Your task to perform on an android device: Empty the shopping cart on amazon. Search for "apple airpods pro" on amazon, select the first entry, and add it to the cart. Image 0: 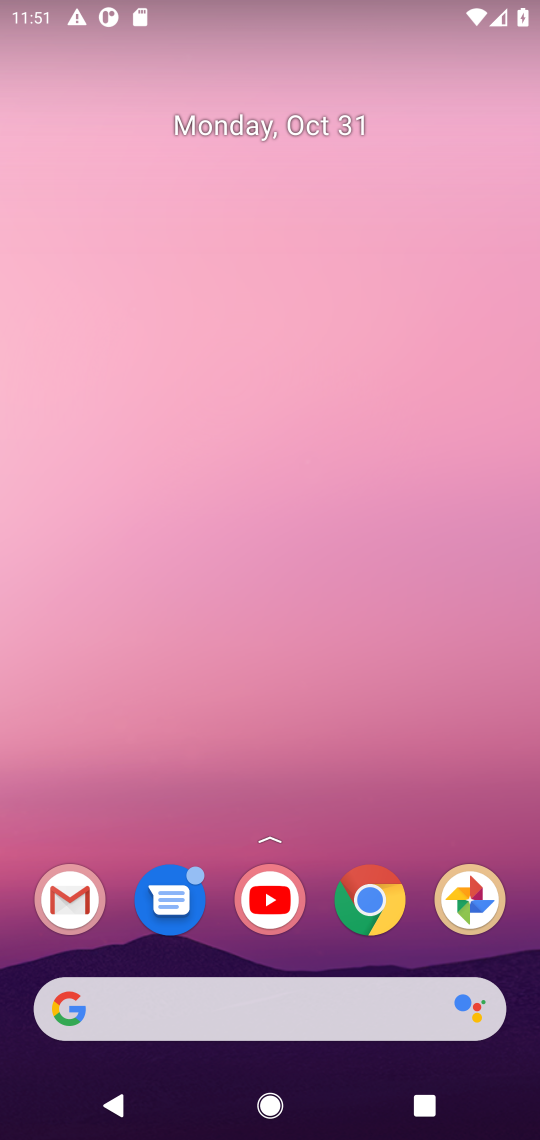
Step 0: click (373, 904)
Your task to perform on an android device: Empty the shopping cart on amazon. Search for "apple airpods pro" on amazon, select the first entry, and add it to the cart. Image 1: 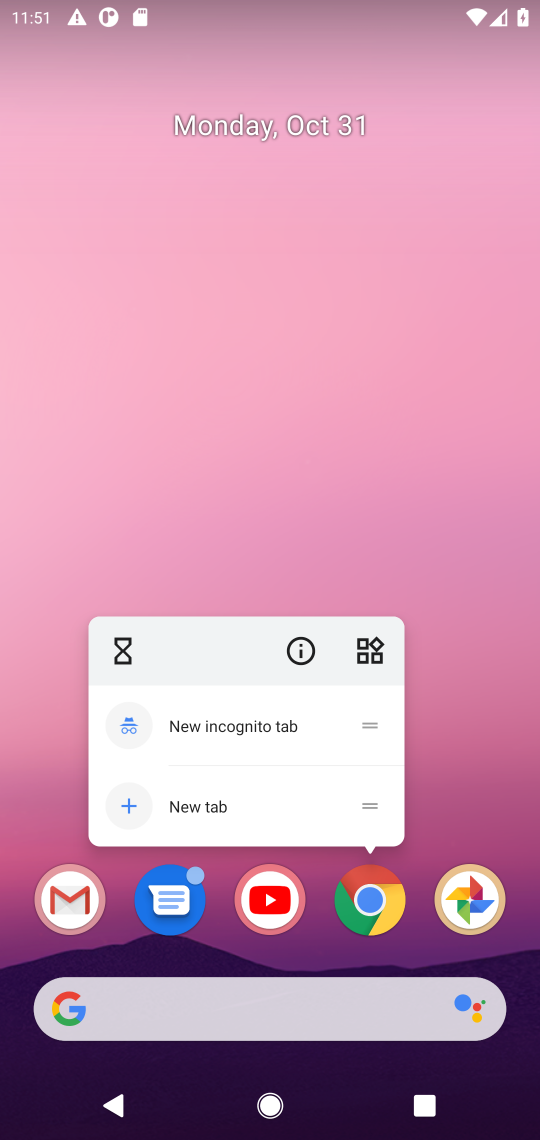
Step 1: click (365, 911)
Your task to perform on an android device: Empty the shopping cart on amazon. Search for "apple airpods pro" on amazon, select the first entry, and add it to the cart. Image 2: 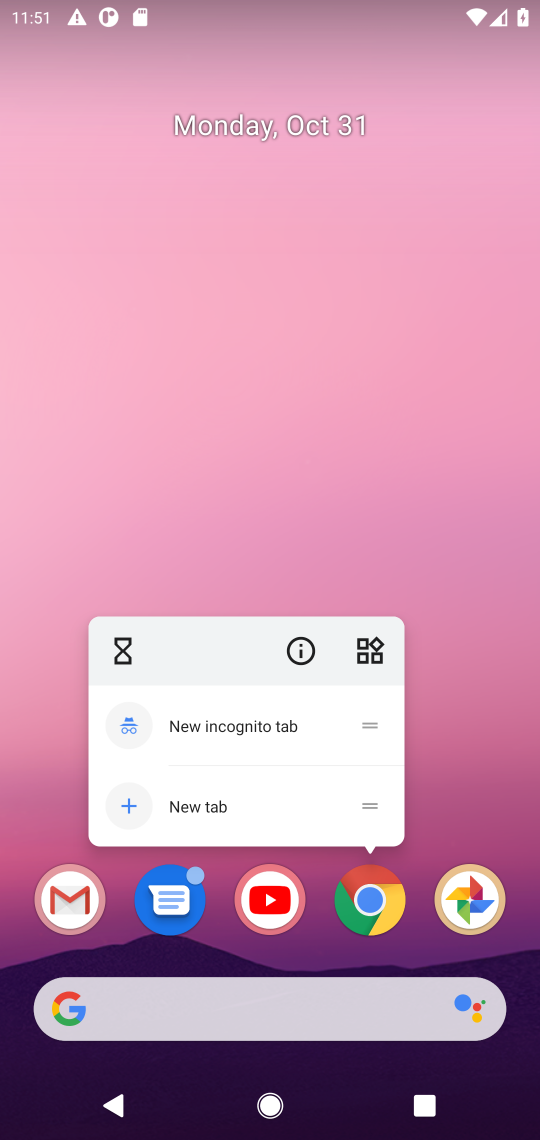
Step 2: click (365, 911)
Your task to perform on an android device: Empty the shopping cart on amazon. Search for "apple airpods pro" on amazon, select the first entry, and add it to the cart. Image 3: 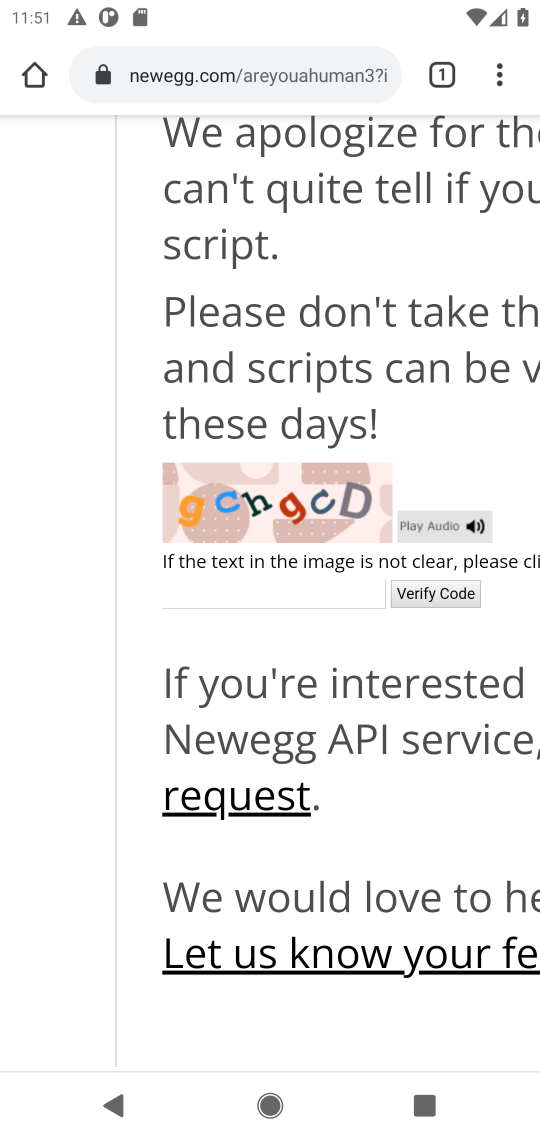
Step 3: click (189, 76)
Your task to perform on an android device: Empty the shopping cart on amazon. Search for "apple airpods pro" on amazon, select the first entry, and add it to the cart. Image 4: 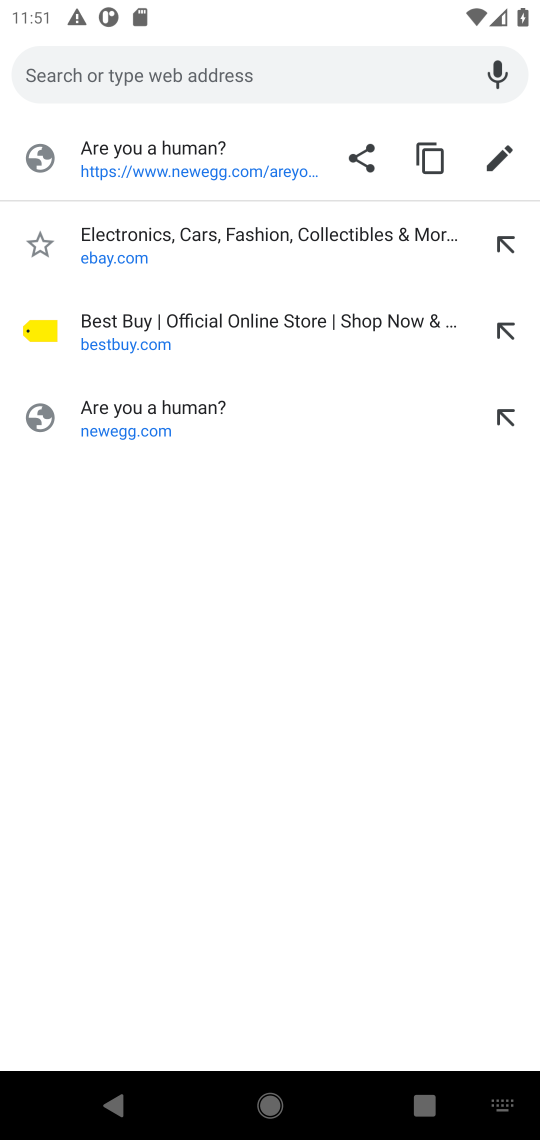
Step 4: type "amazon"
Your task to perform on an android device: Empty the shopping cart on amazon. Search for "apple airpods pro" on amazon, select the first entry, and add it to the cart. Image 5: 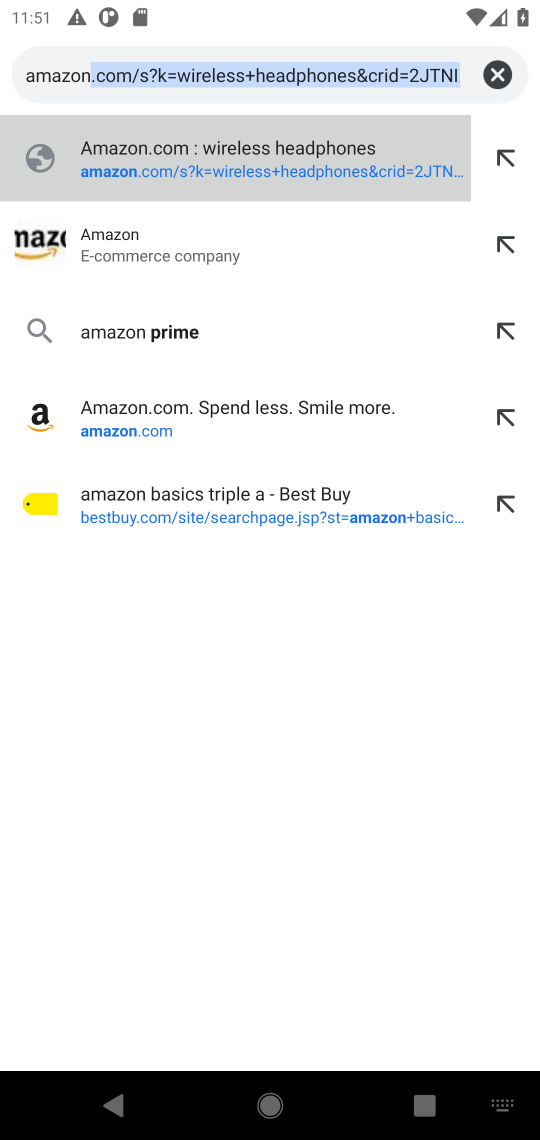
Step 5: press enter
Your task to perform on an android device: Empty the shopping cart on amazon. Search for "apple airpods pro" on amazon, select the first entry, and add it to the cart. Image 6: 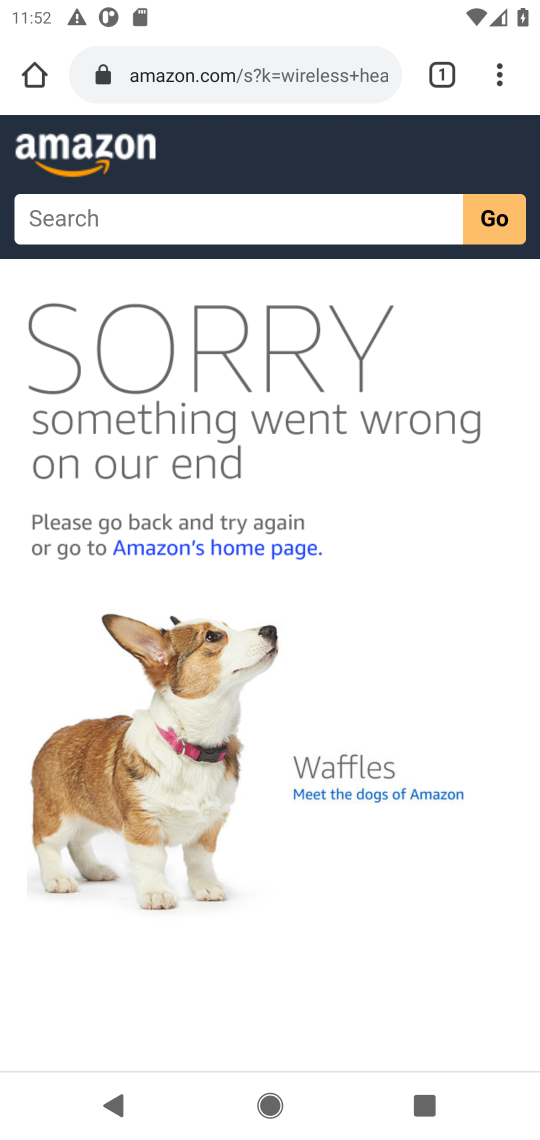
Step 6: click (59, 153)
Your task to perform on an android device: Empty the shopping cart on amazon. Search for "apple airpods pro" on amazon, select the first entry, and add it to the cart. Image 7: 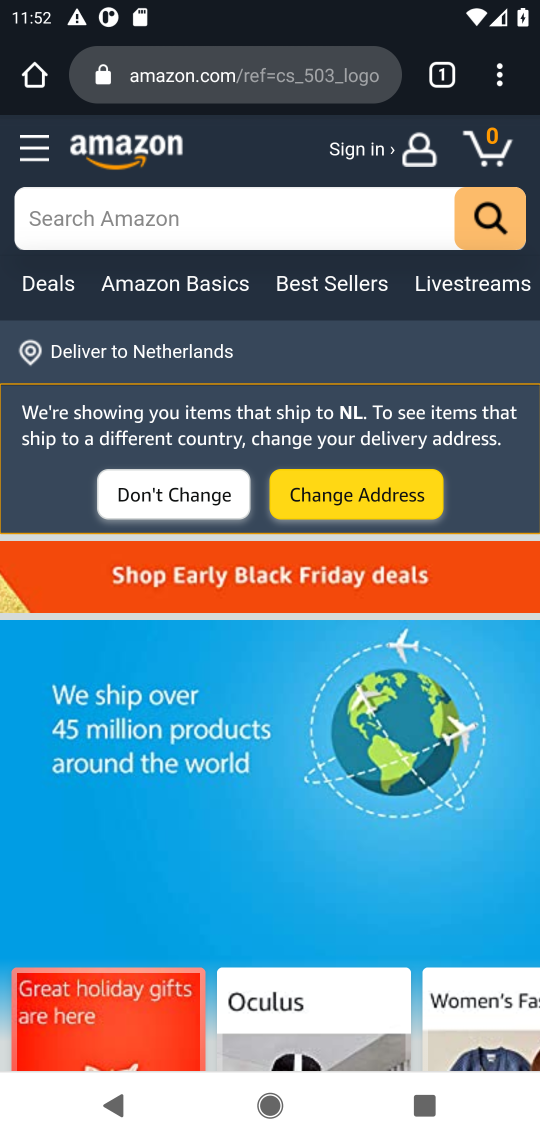
Step 7: click (489, 151)
Your task to perform on an android device: Empty the shopping cart on amazon. Search for "apple airpods pro" on amazon, select the first entry, and add it to the cart. Image 8: 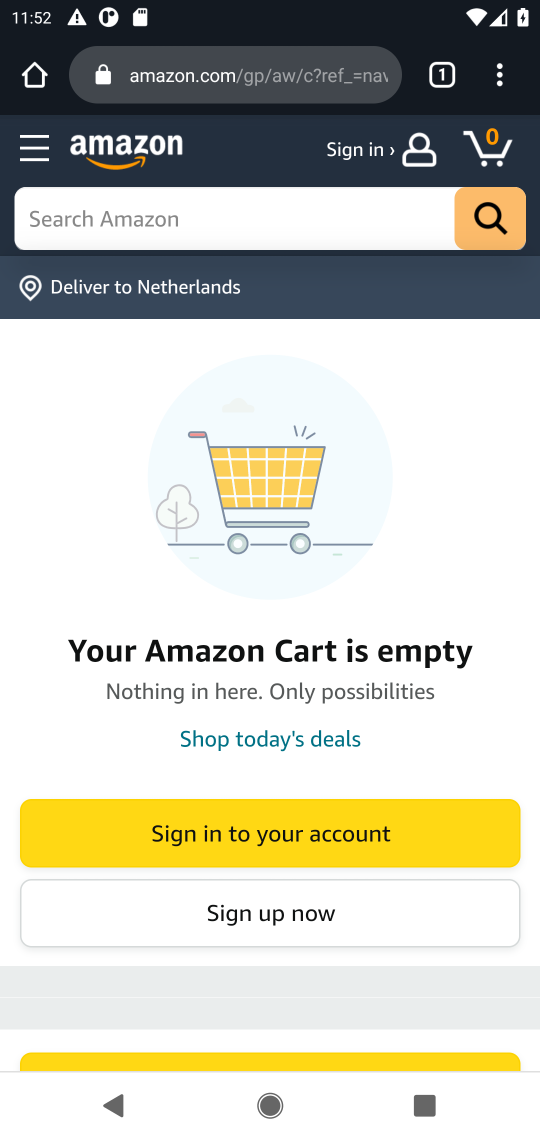
Step 8: click (271, 208)
Your task to perform on an android device: Empty the shopping cart on amazon. Search for "apple airpods pro" on amazon, select the first entry, and add it to the cart. Image 9: 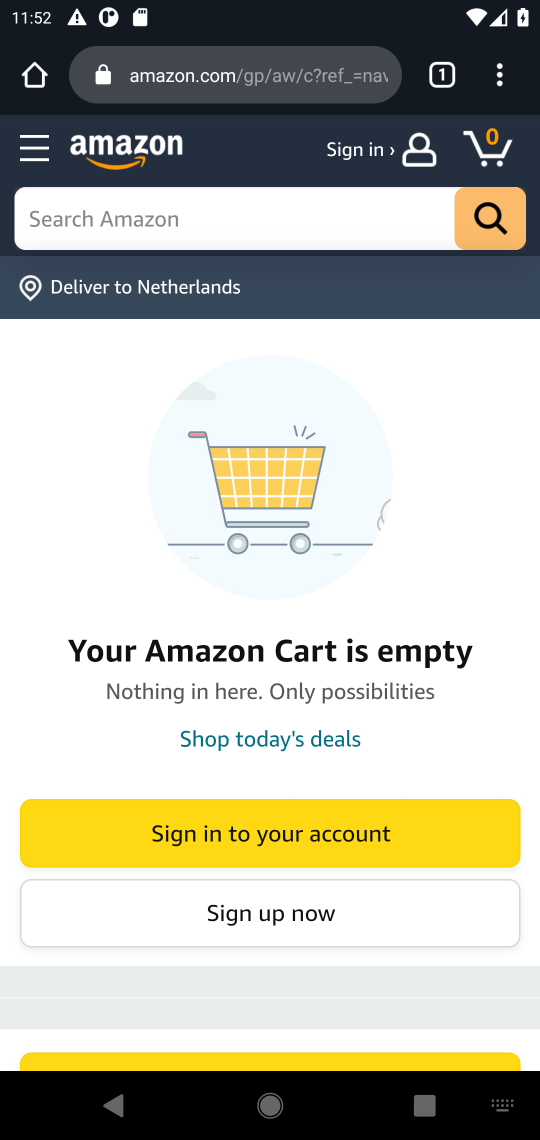
Step 9: type "apple airpods pro"
Your task to perform on an android device: Empty the shopping cart on amazon. Search for "apple airpods pro" on amazon, select the first entry, and add it to the cart. Image 10: 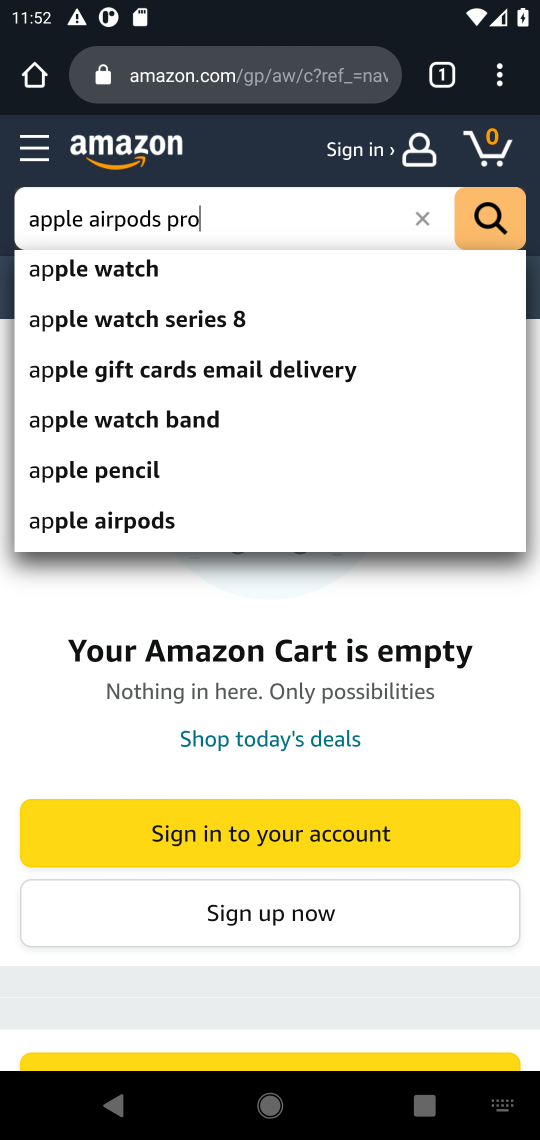
Step 10: press enter
Your task to perform on an android device: Empty the shopping cart on amazon. Search for "apple airpods pro" on amazon, select the first entry, and add it to the cart. Image 11: 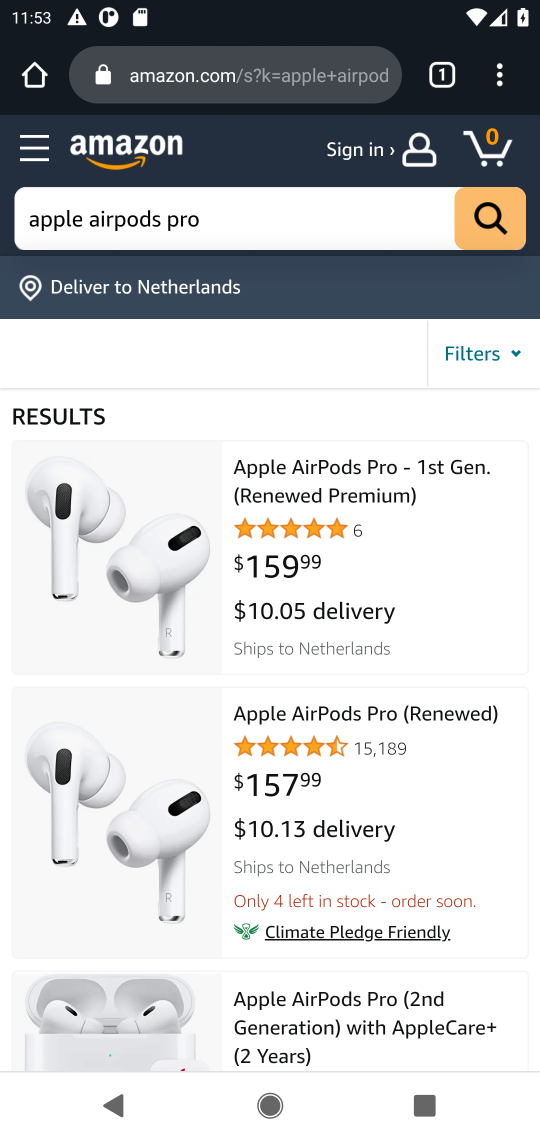
Step 11: click (283, 499)
Your task to perform on an android device: Empty the shopping cart on amazon. Search for "apple airpods pro" on amazon, select the first entry, and add it to the cart. Image 12: 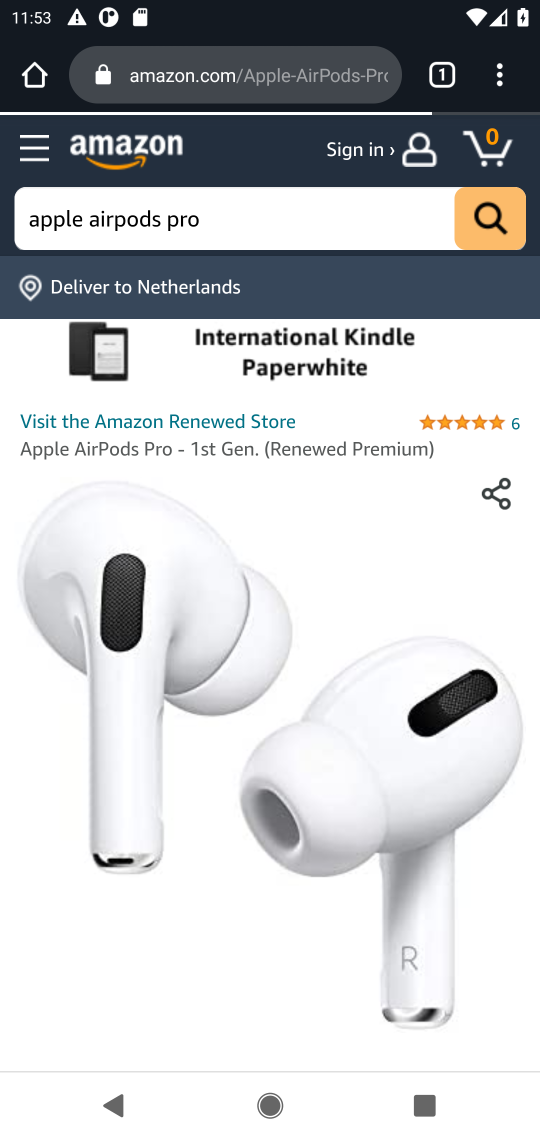
Step 12: task complete